Your task to perform on an android device: Show me popular games on the Play Store Image 0: 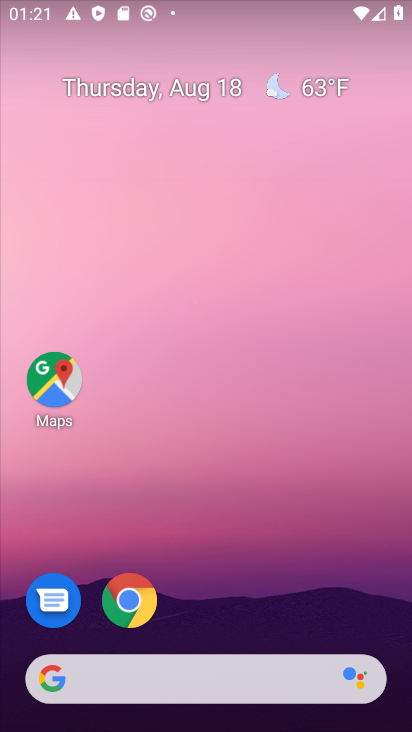
Step 0: drag from (231, 611) to (210, 150)
Your task to perform on an android device: Show me popular games on the Play Store Image 1: 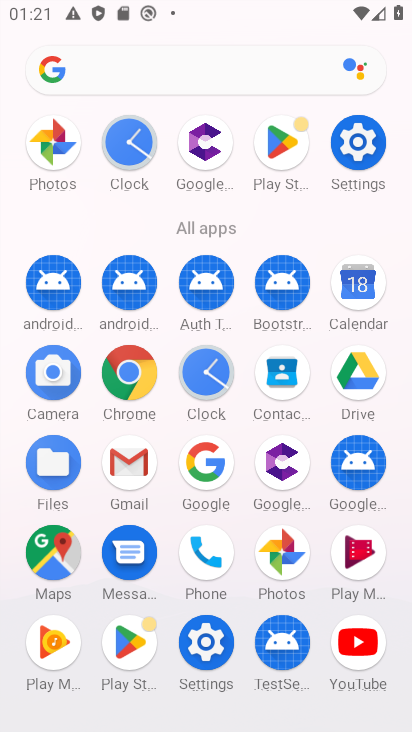
Step 1: click (129, 649)
Your task to perform on an android device: Show me popular games on the Play Store Image 2: 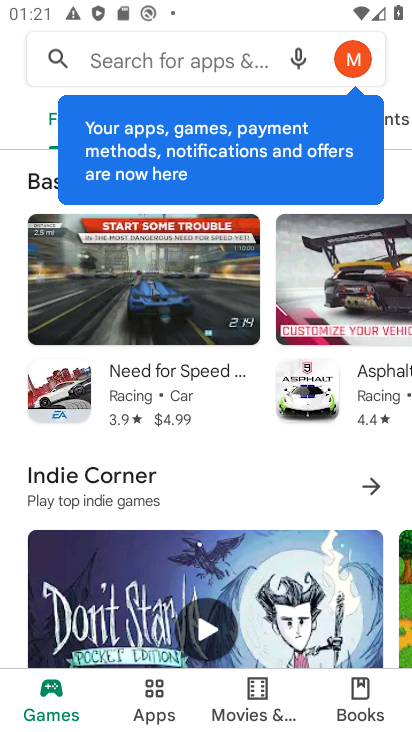
Step 2: task complete